Your task to perform on an android device: Do I have any events today? Image 0: 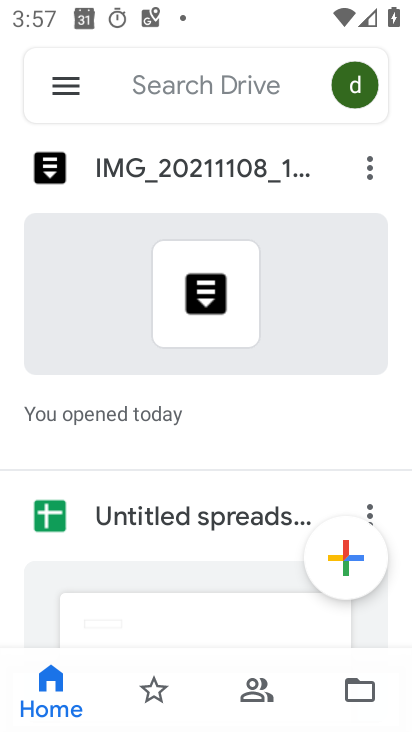
Step 0: press home button
Your task to perform on an android device: Do I have any events today? Image 1: 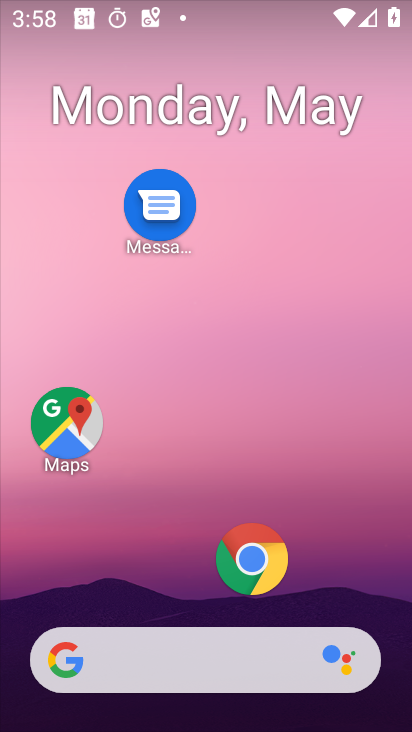
Step 1: drag from (143, 581) to (165, 267)
Your task to perform on an android device: Do I have any events today? Image 2: 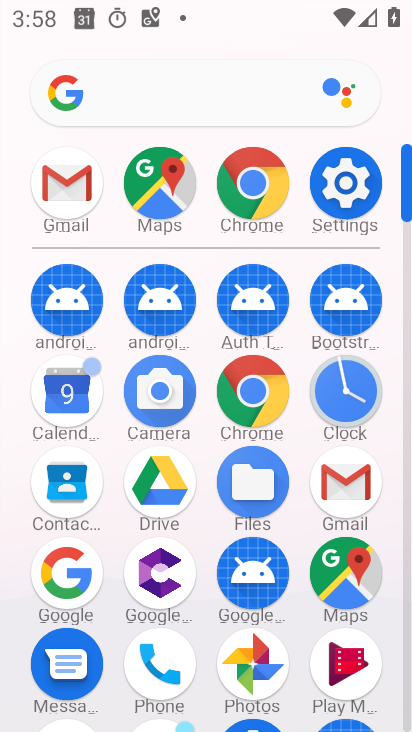
Step 2: click (60, 410)
Your task to perform on an android device: Do I have any events today? Image 3: 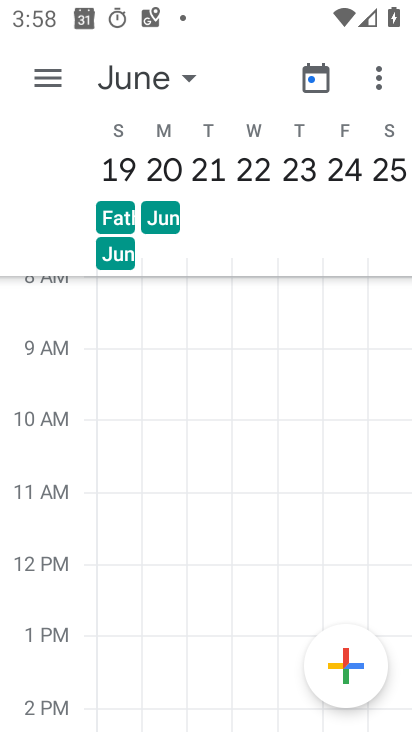
Step 3: click (132, 89)
Your task to perform on an android device: Do I have any events today? Image 4: 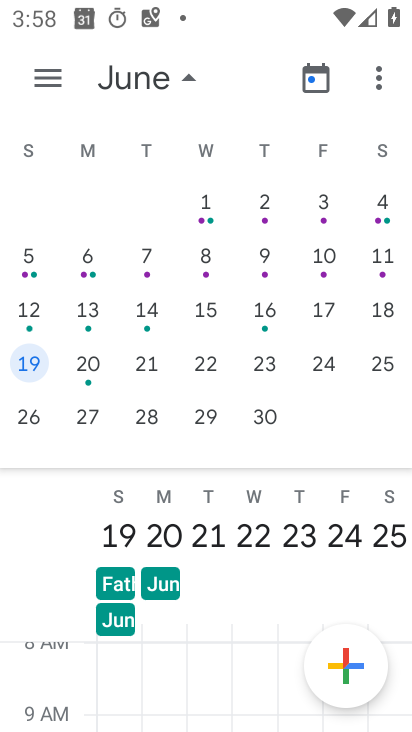
Step 4: task complete